Your task to perform on an android device: set the timer Image 0: 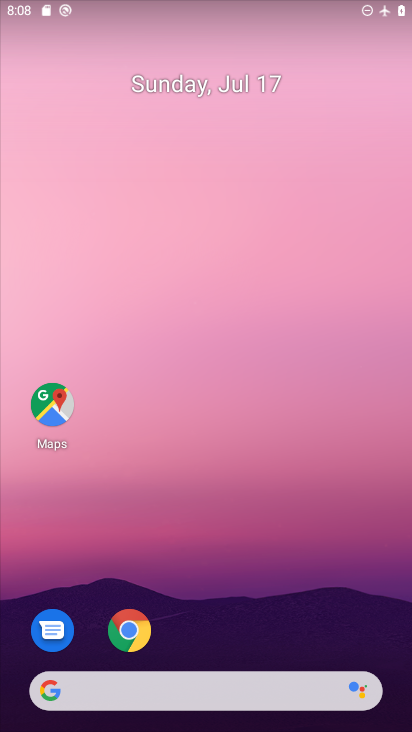
Step 0: drag from (287, 683) to (317, 183)
Your task to perform on an android device: set the timer Image 1: 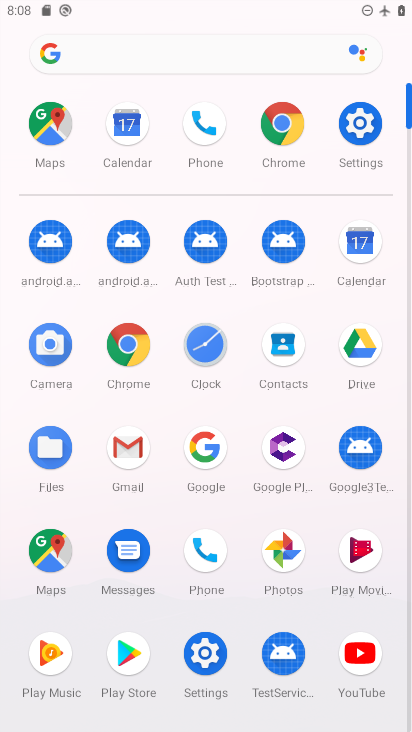
Step 1: click (358, 230)
Your task to perform on an android device: set the timer Image 2: 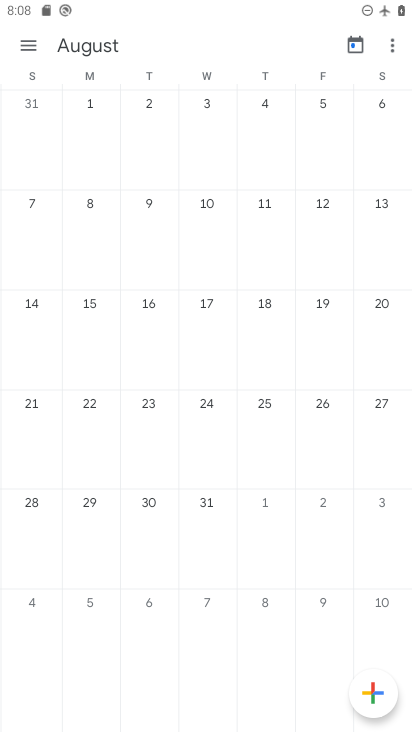
Step 2: press home button
Your task to perform on an android device: set the timer Image 3: 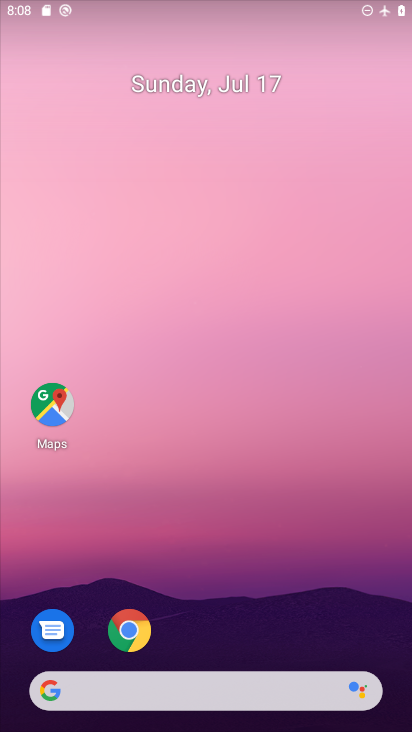
Step 3: drag from (204, 623) to (199, 124)
Your task to perform on an android device: set the timer Image 4: 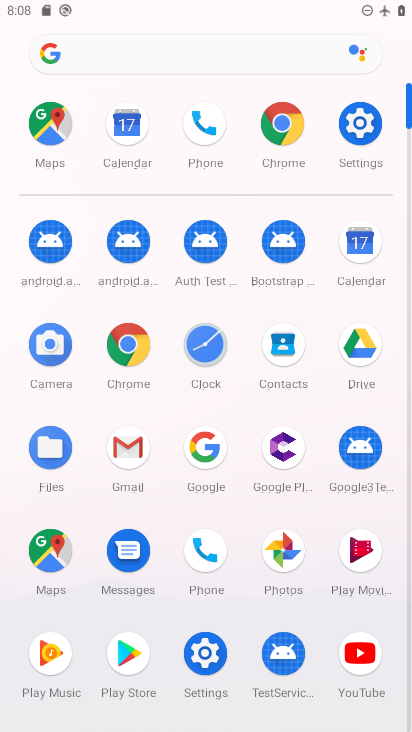
Step 4: click (199, 334)
Your task to perform on an android device: set the timer Image 5: 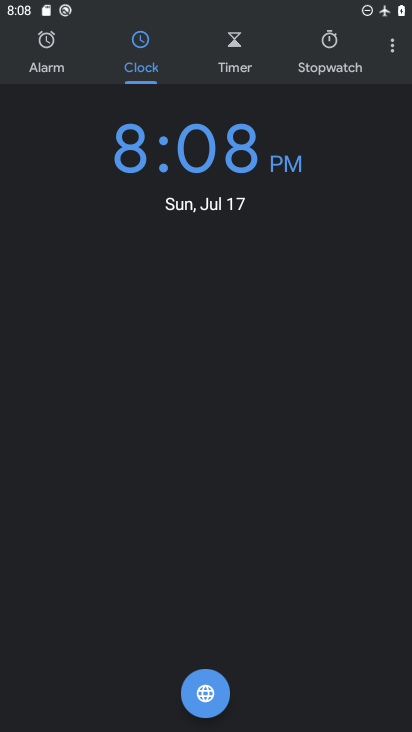
Step 5: click (232, 57)
Your task to perform on an android device: set the timer Image 6: 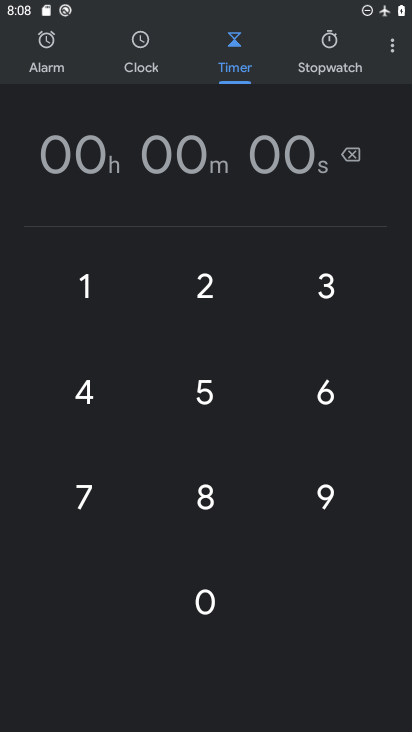
Step 6: click (187, 153)
Your task to perform on an android device: set the timer Image 7: 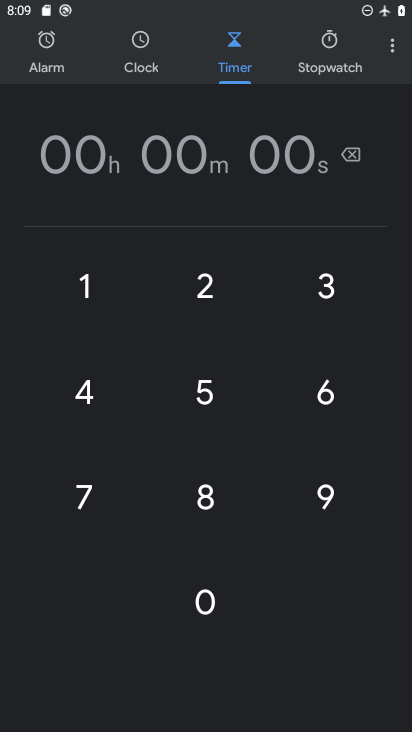
Step 7: type "9898898989 "
Your task to perform on an android device: set the timer Image 8: 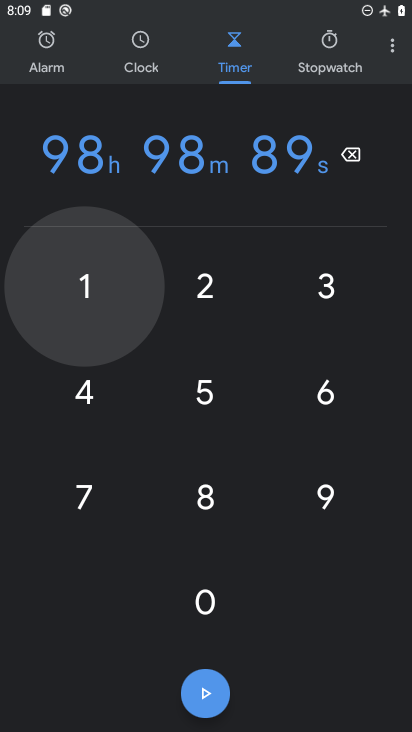
Step 8: task complete